Your task to perform on an android device: check data usage Image 0: 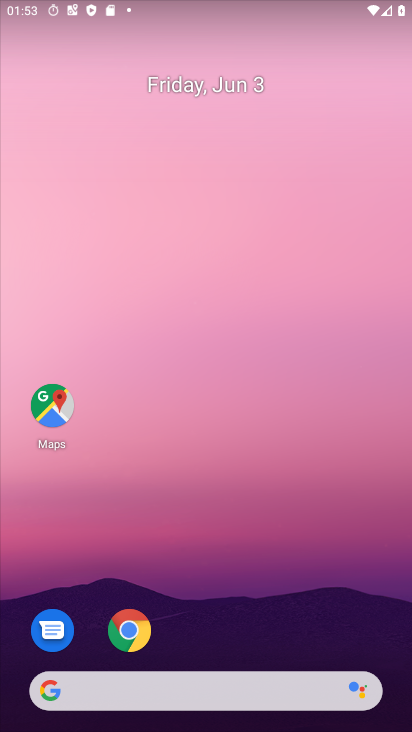
Step 0: drag from (261, 626) to (218, 200)
Your task to perform on an android device: check data usage Image 1: 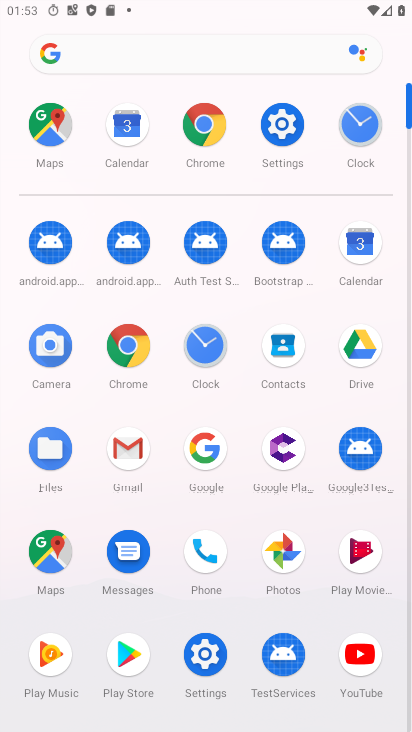
Step 1: click (273, 143)
Your task to perform on an android device: check data usage Image 2: 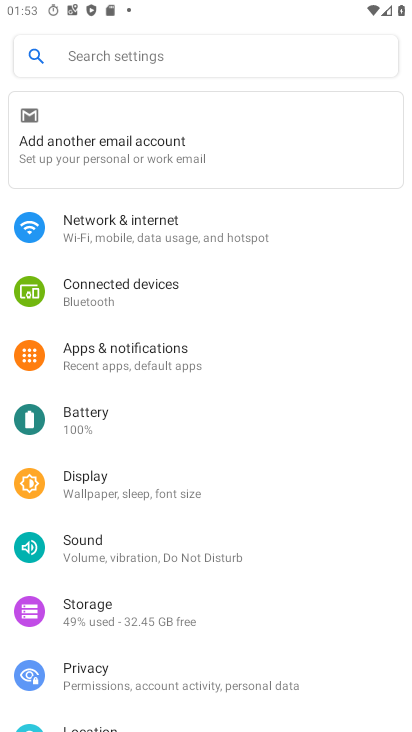
Step 2: click (142, 233)
Your task to perform on an android device: check data usage Image 3: 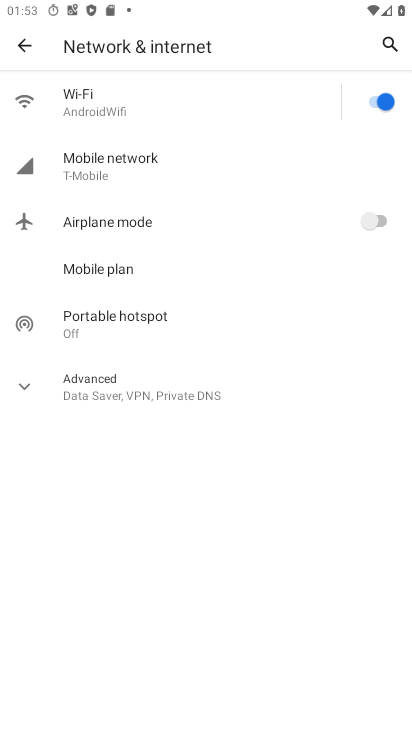
Step 3: click (97, 106)
Your task to perform on an android device: check data usage Image 4: 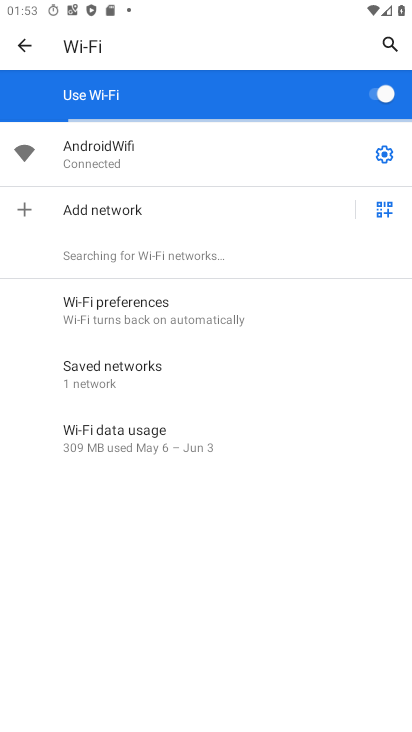
Step 4: click (150, 433)
Your task to perform on an android device: check data usage Image 5: 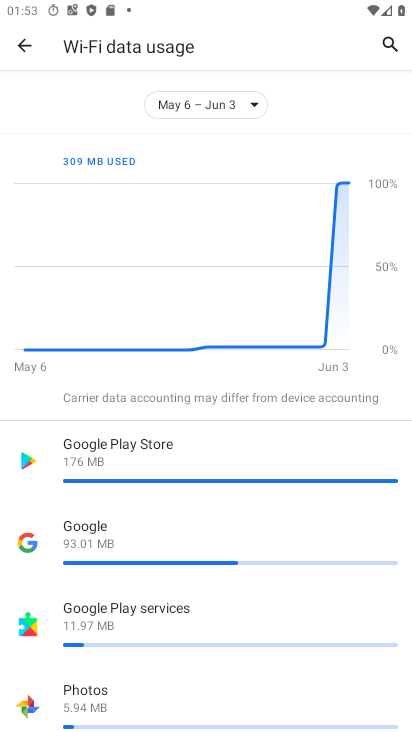
Step 5: task complete